Your task to perform on an android device: Go to Wikipedia Image 0: 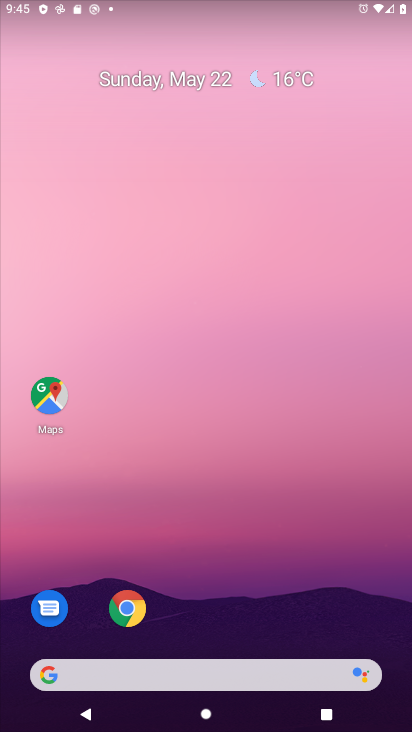
Step 0: drag from (234, 595) to (234, 0)
Your task to perform on an android device: Go to Wikipedia Image 1: 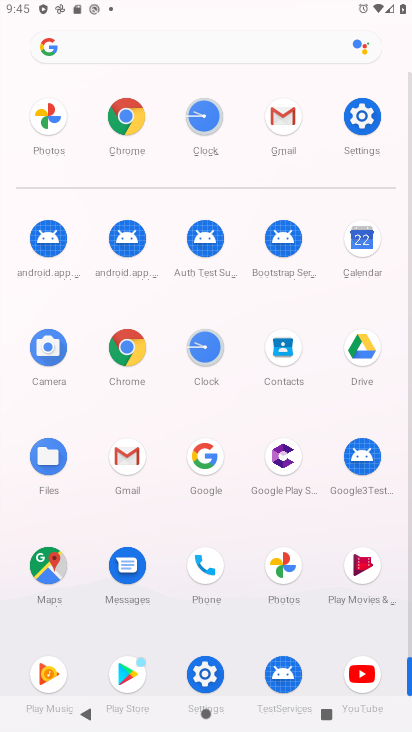
Step 1: click (126, 115)
Your task to perform on an android device: Go to Wikipedia Image 2: 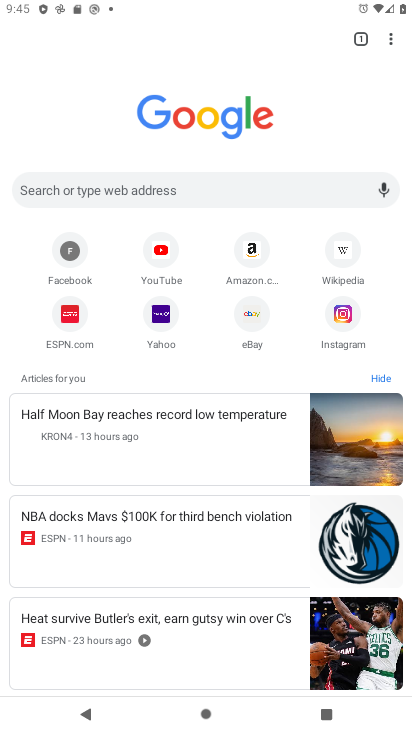
Step 2: click (340, 246)
Your task to perform on an android device: Go to Wikipedia Image 3: 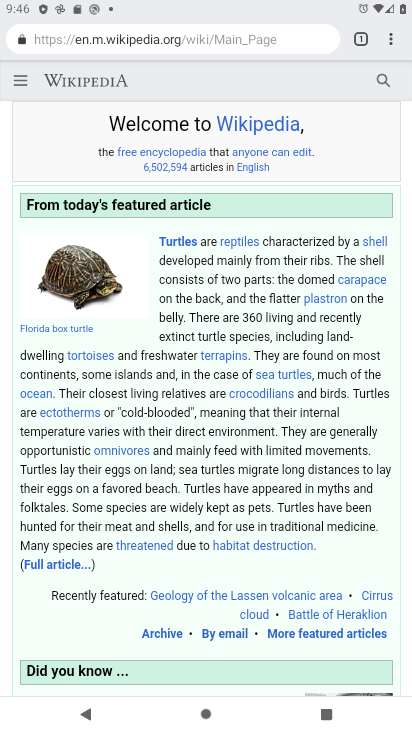
Step 3: task complete